Your task to perform on an android device: turn pop-ups off in chrome Image 0: 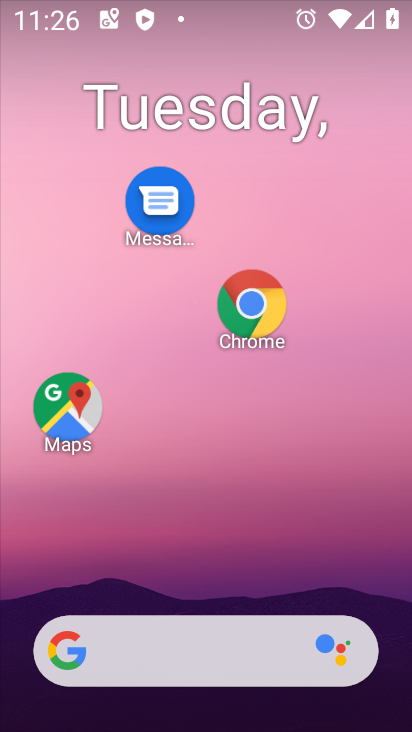
Step 0: drag from (295, 419) to (346, 122)
Your task to perform on an android device: turn pop-ups off in chrome Image 1: 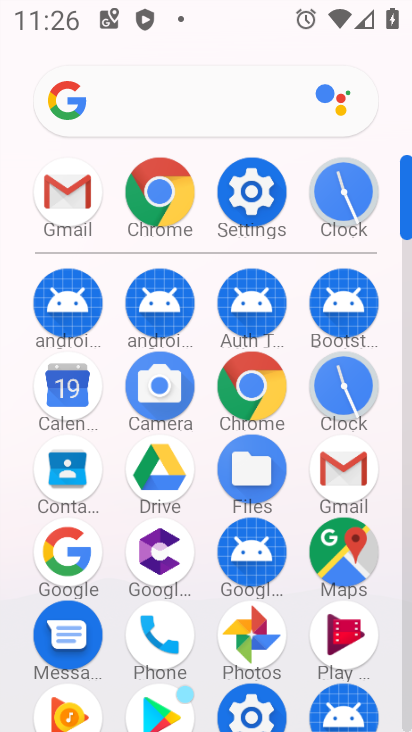
Step 1: click (157, 209)
Your task to perform on an android device: turn pop-ups off in chrome Image 2: 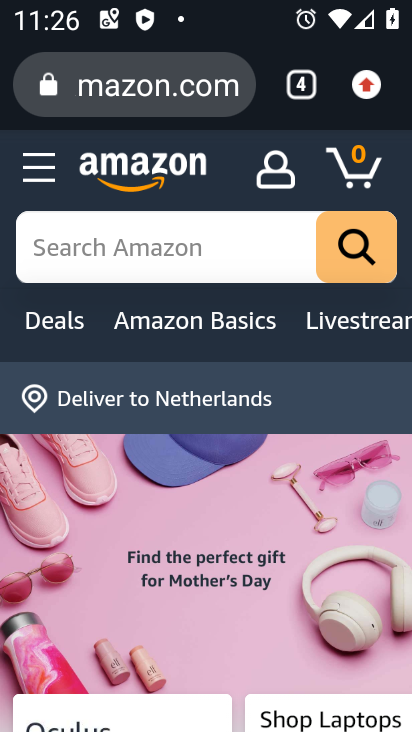
Step 2: click (369, 92)
Your task to perform on an android device: turn pop-ups off in chrome Image 3: 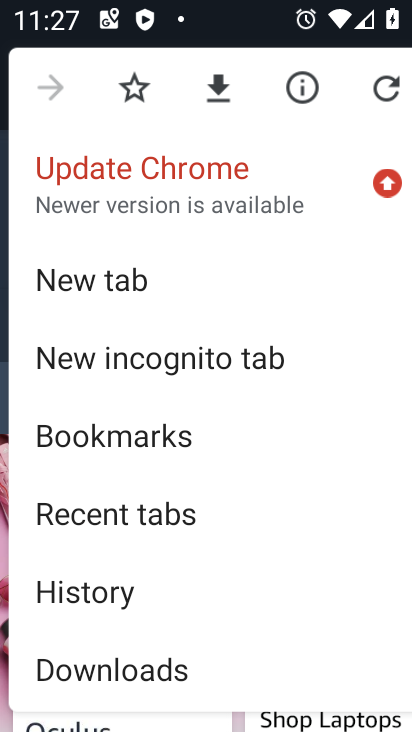
Step 3: drag from (227, 602) to (300, 192)
Your task to perform on an android device: turn pop-ups off in chrome Image 4: 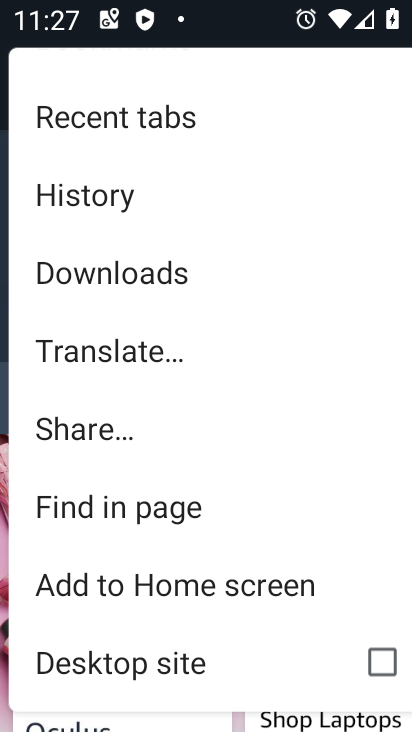
Step 4: drag from (137, 636) to (268, 184)
Your task to perform on an android device: turn pop-ups off in chrome Image 5: 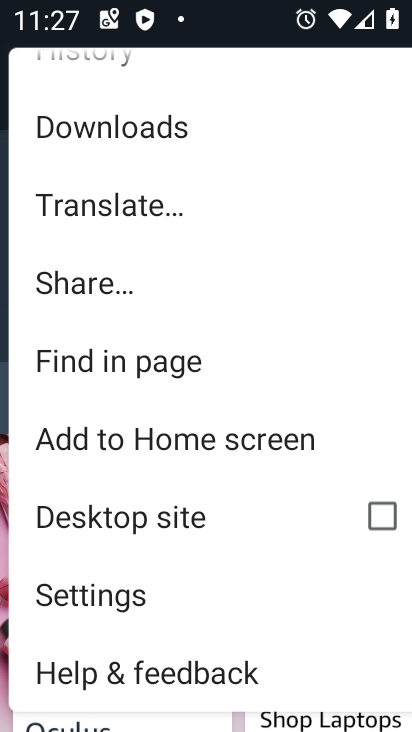
Step 5: click (110, 604)
Your task to perform on an android device: turn pop-ups off in chrome Image 6: 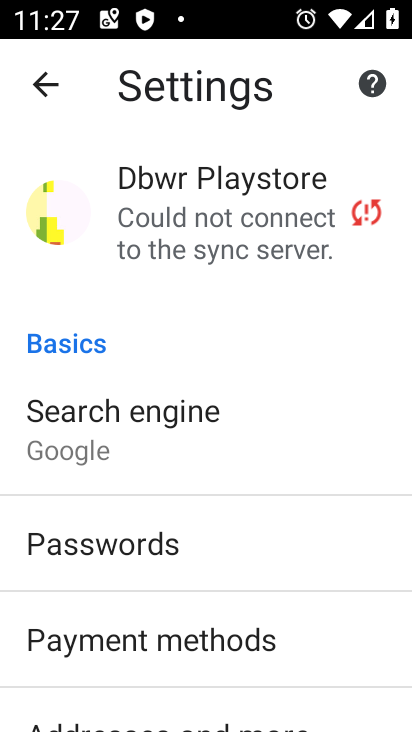
Step 6: drag from (200, 615) to (316, 148)
Your task to perform on an android device: turn pop-ups off in chrome Image 7: 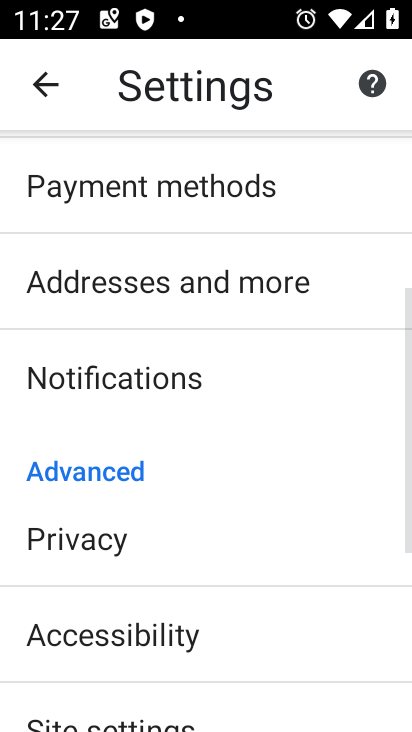
Step 7: drag from (159, 643) to (314, 188)
Your task to perform on an android device: turn pop-ups off in chrome Image 8: 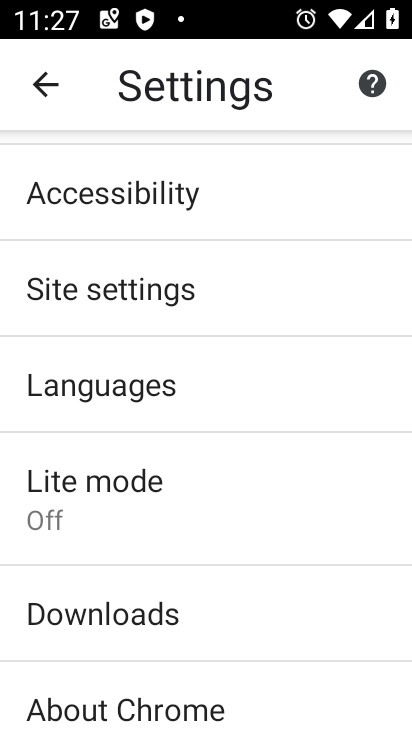
Step 8: click (165, 274)
Your task to perform on an android device: turn pop-ups off in chrome Image 9: 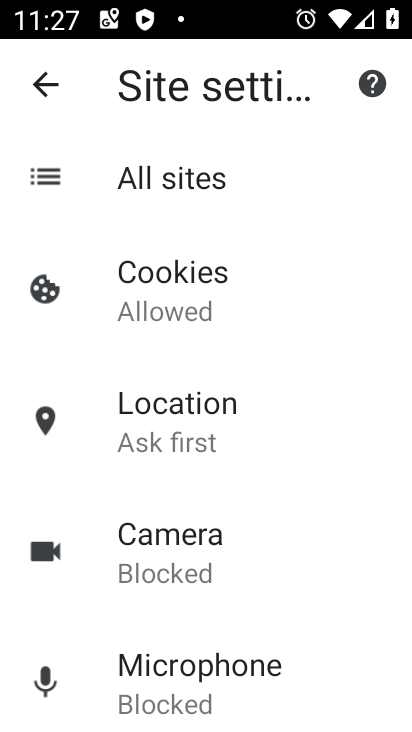
Step 9: drag from (189, 645) to (296, 233)
Your task to perform on an android device: turn pop-ups off in chrome Image 10: 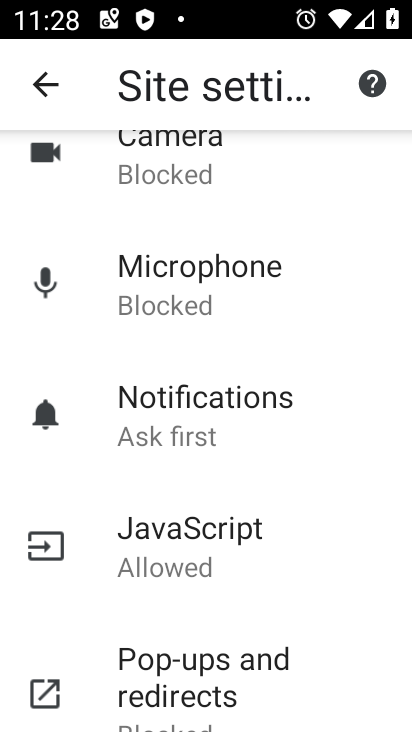
Step 10: click (159, 658)
Your task to perform on an android device: turn pop-ups off in chrome Image 11: 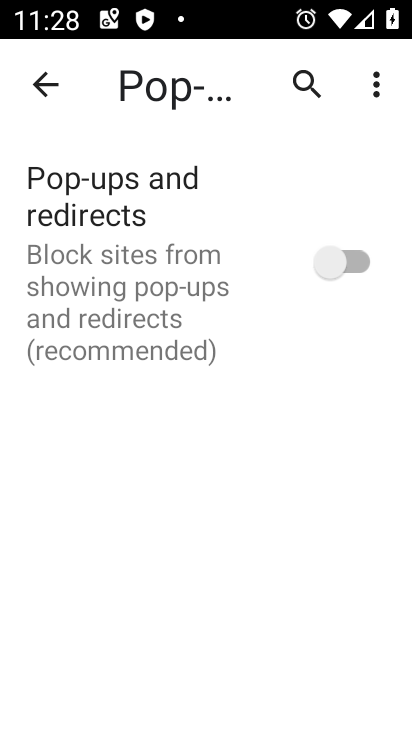
Step 11: task complete